Your task to perform on an android device: turn on wifi Image 0: 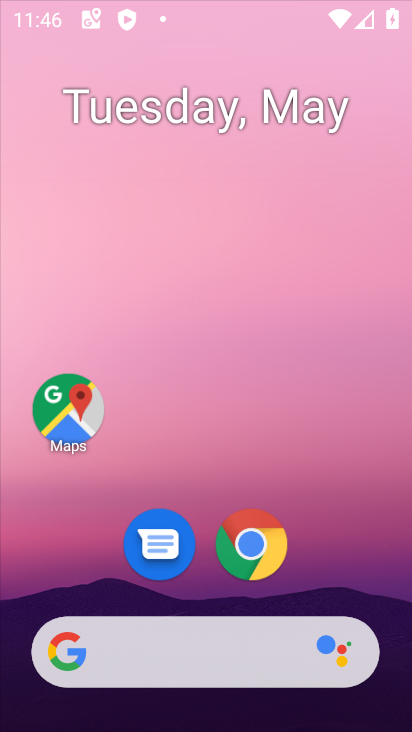
Step 0: press back button
Your task to perform on an android device: turn on wifi Image 1: 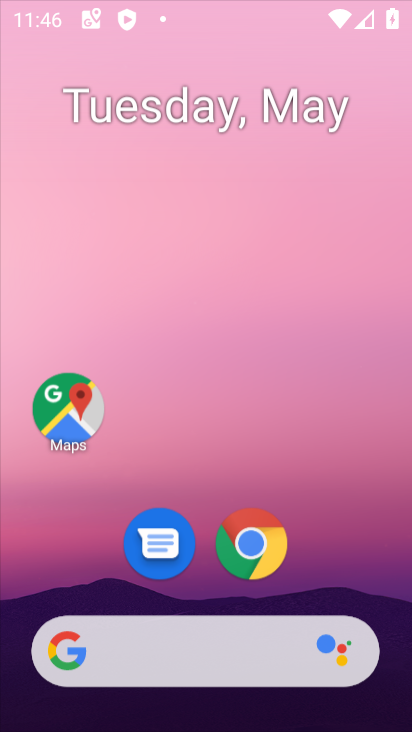
Step 1: click (53, 72)
Your task to perform on an android device: turn on wifi Image 2: 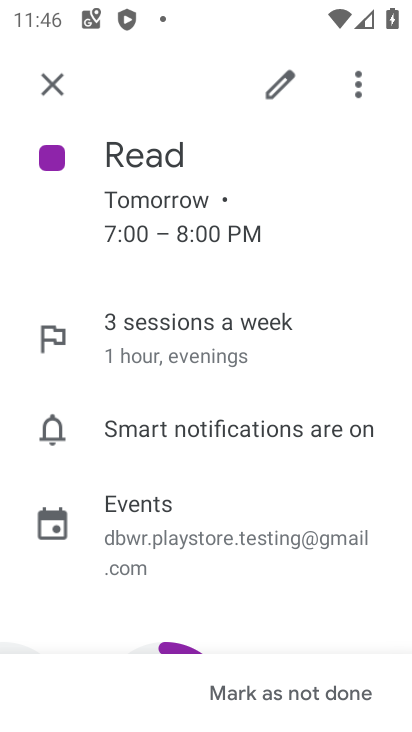
Step 2: click (60, 80)
Your task to perform on an android device: turn on wifi Image 3: 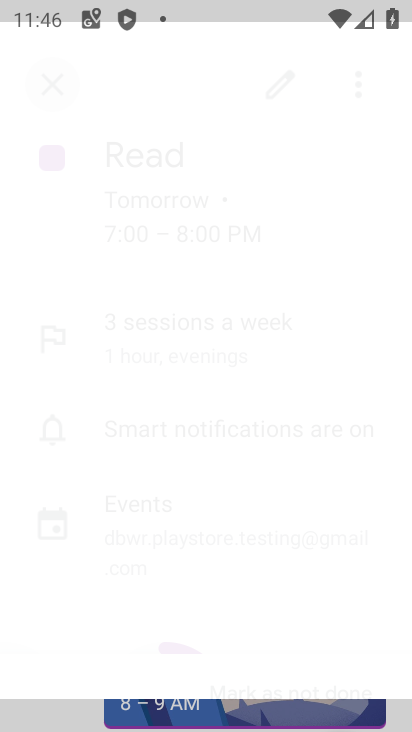
Step 3: click (42, 86)
Your task to perform on an android device: turn on wifi Image 4: 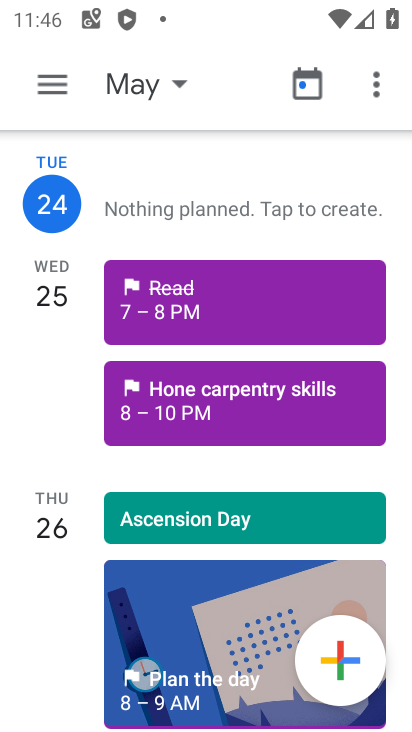
Step 4: click (52, 79)
Your task to perform on an android device: turn on wifi Image 5: 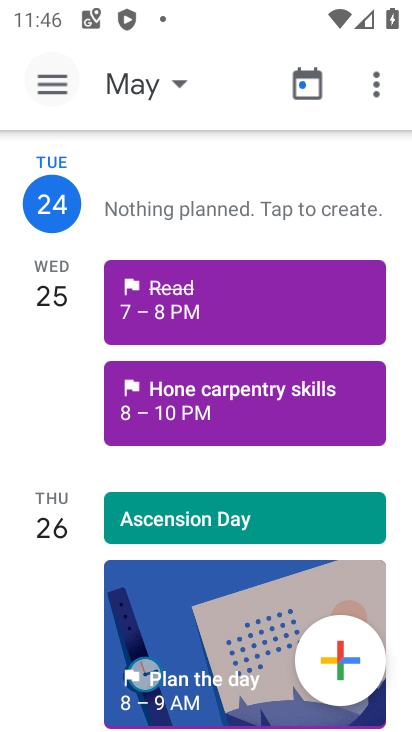
Step 5: press back button
Your task to perform on an android device: turn on wifi Image 6: 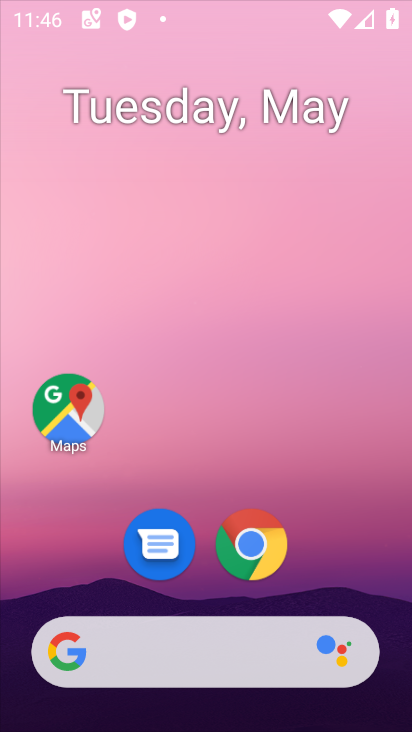
Step 6: press back button
Your task to perform on an android device: turn on wifi Image 7: 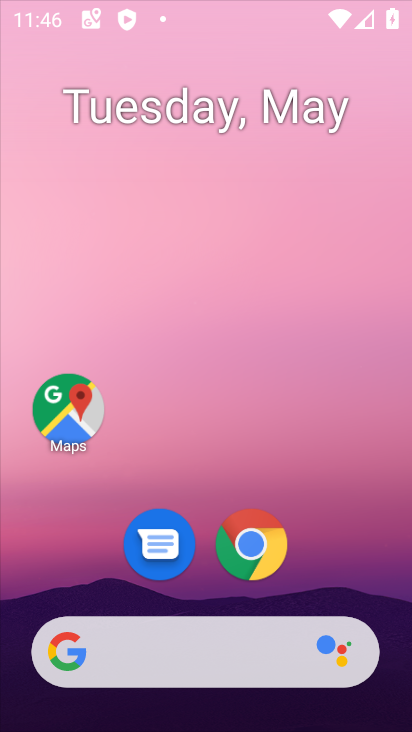
Step 7: press home button
Your task to perform on an android device: turn on wifi Image 8: 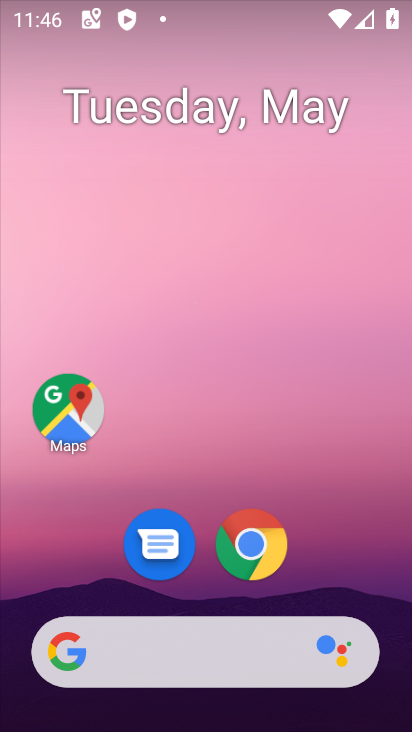
Step 8: click (43, 86)
Your task to perform on an android device: turn on wifi Image 9: 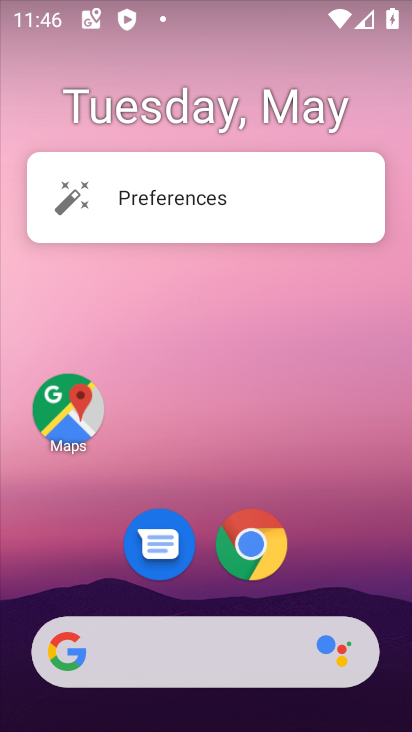
Step 9: drag from (290, 663) to (188, 0)
Your task to perform on an android device: turn on wifi Image 10: 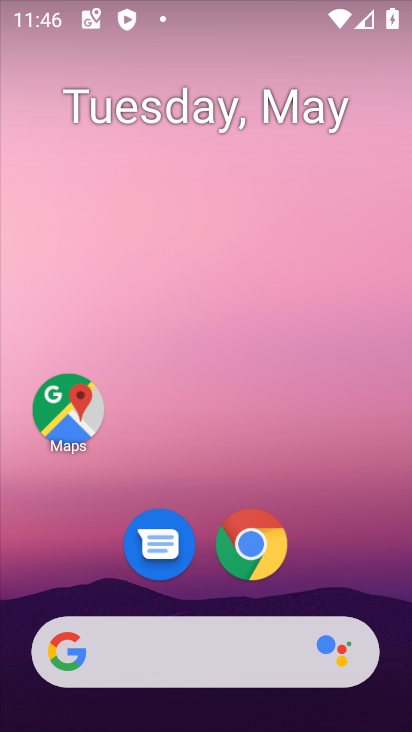
Step 10: drag from (275, 543) to (203, 101)
Your task to perform on an android device: turn on wifi Image 11: 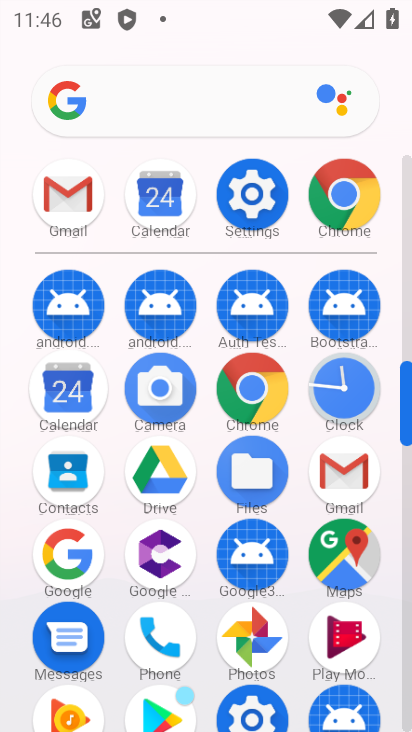
Step 11: click (250, 186)
Your task to perform on an android device: turn on wifi Image 12: 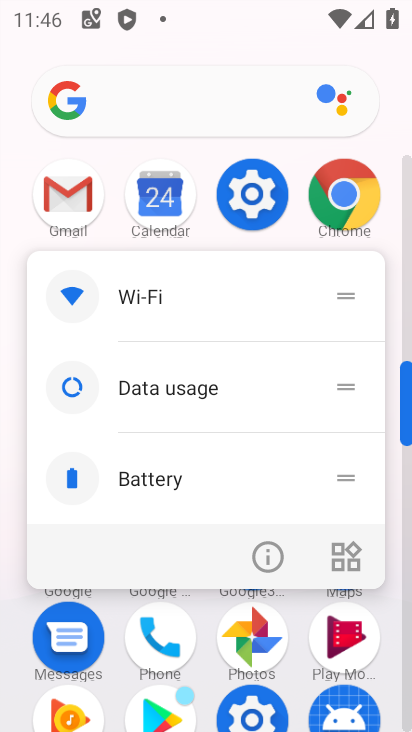
Step 12: click (242, 203)
Your task to perform on an android device: turn on wifi Image 13: 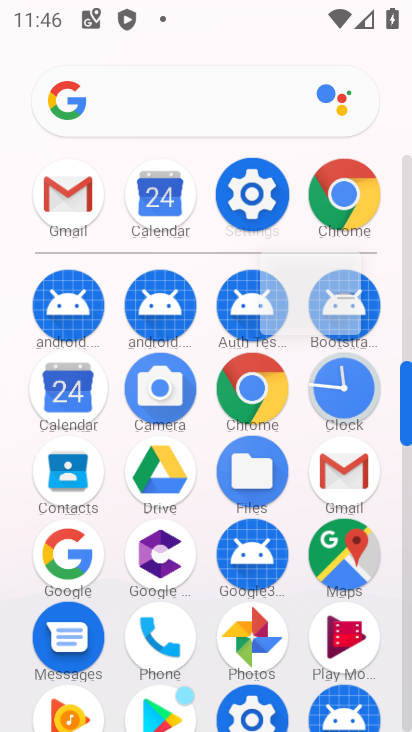
Step 13: click (249, 201)
Your task to perform on an android device: turn on wifi Image 14: 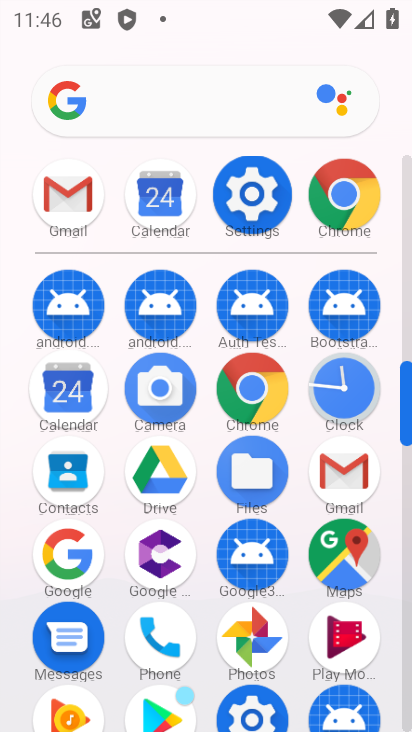
Step 14: click (254, 198)
Your task to perform on an android device: turn on wifi Image 15: 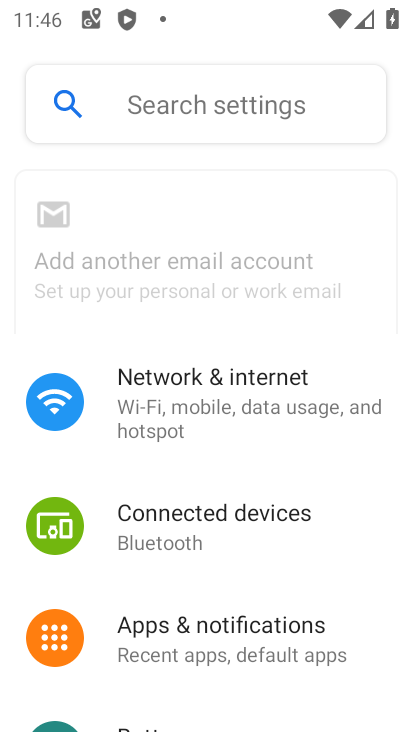
Step 15: click (165, 305)
Your task to perform on an android device: turn on wifi Image 16: 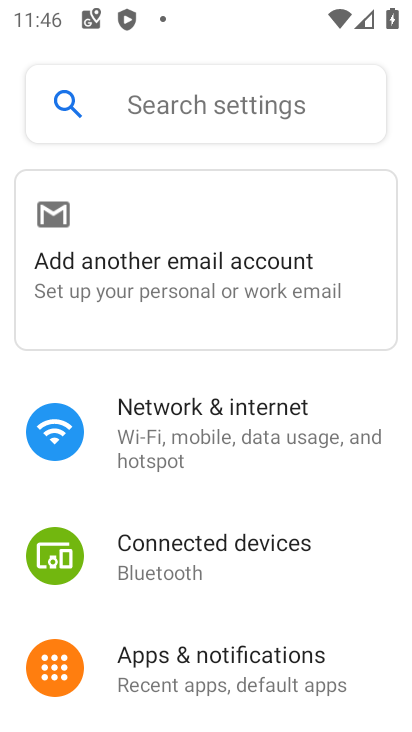
Step 16: click (166, 303)
Your task to perform on an android device: turn on wifi Image 17: 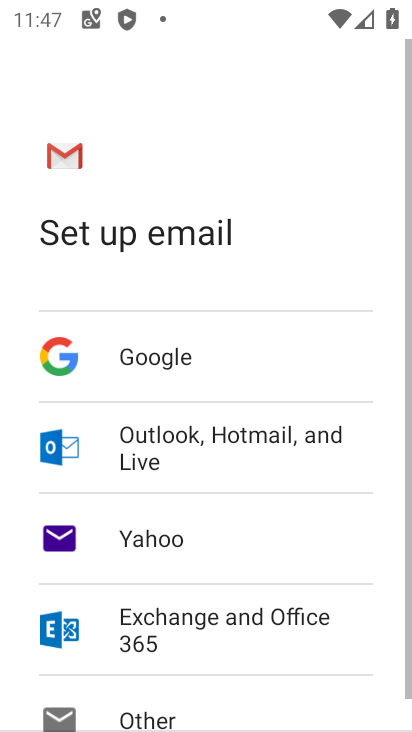
Step 17: press back button
Your task to perform on an android device: turn on wifi Image 18: 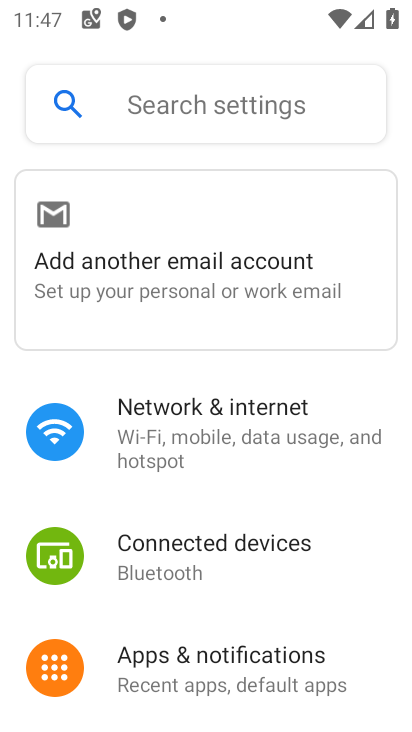
Step 18: press home button
Your task to perform on an android device: turn on wifi Image 19: 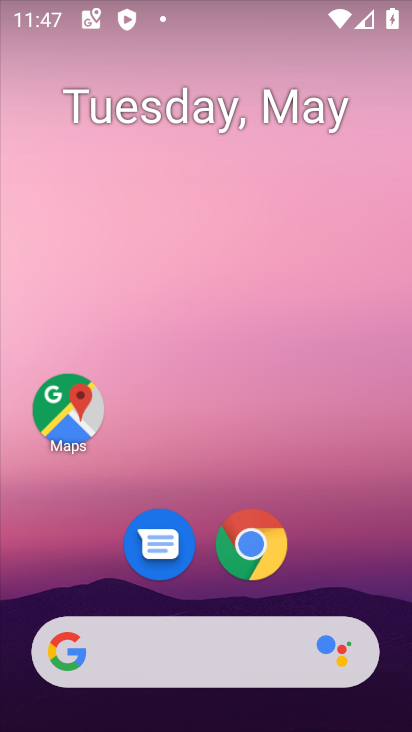
Step 19: click (240, 245)
Your task to perform on an android device: turn on wifi Image 20: 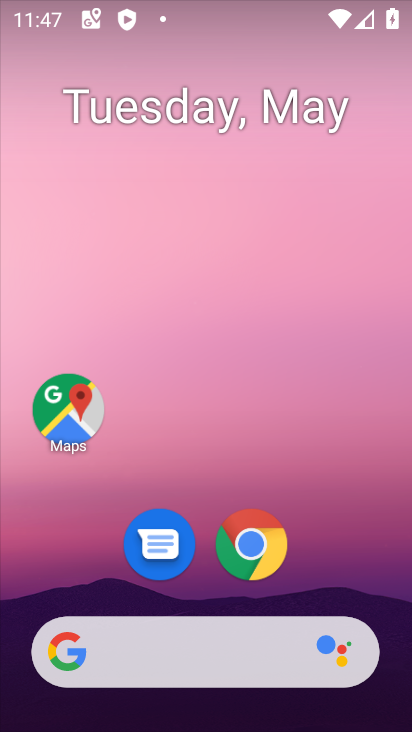
Step 20: click (252, 442)
Your task to perform on an android device: turn on wifi Image 21: 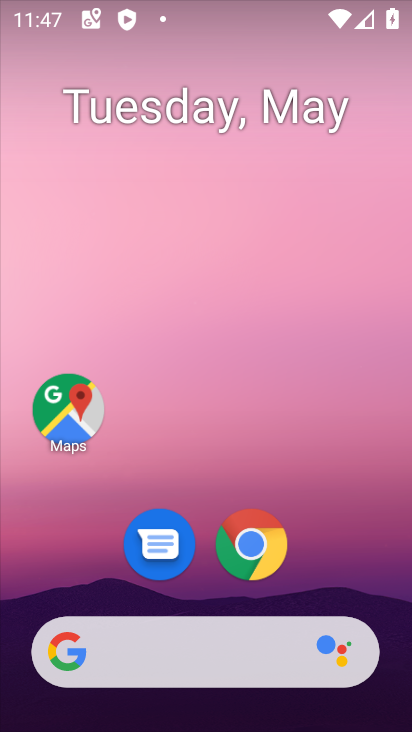
Step 21: task complete